Your task to perform on an android device: add a contact in the contacts app Image 0: 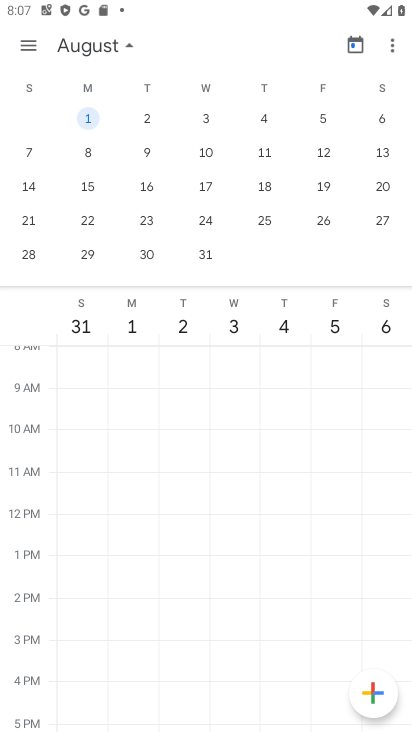
Step 0: press home button
Your task to perform on an android device: add a contact in the contacts app Image 1: 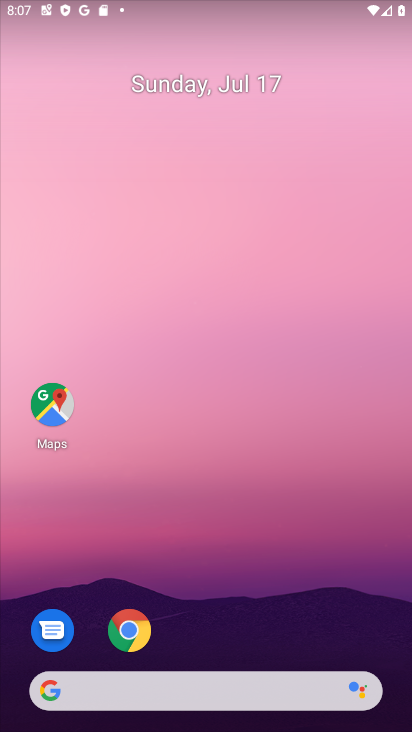
Step 1: drag from (195, 596) to (195, 420)
Your task to perform on an android device: add a contact in the contacts app Image 2: 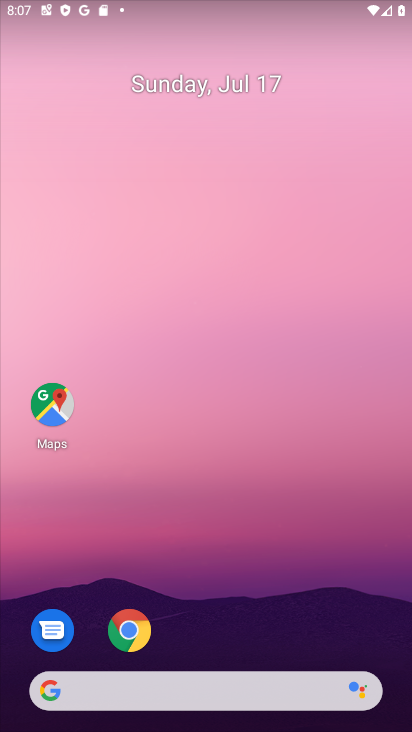
Step 2: drag from (190, 569) to (265, 100)
Your task to perform on an android device: add a contact in the contacts app Image 3: 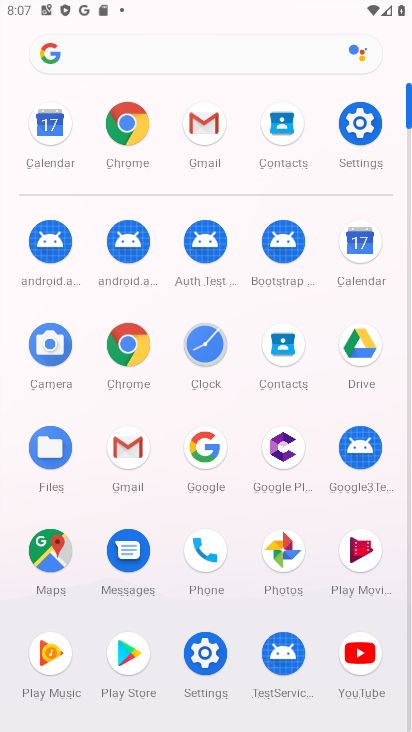
Step 3: click (281, 376)
Your task to perform on an android device: add a contact in the contacts app Image 4: 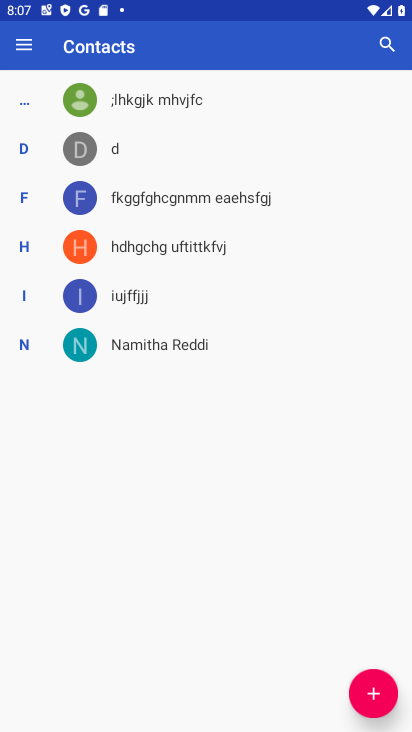
Step 4: click (368, 697)
Your task to perform on an android device: add a contact in the contacts app Image 5: 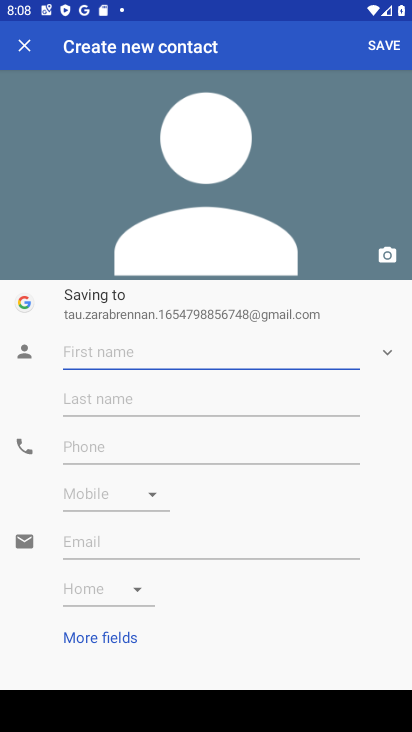
Step 5: type "Rudra"
Your task to perform on an android device: add a contact in the contacts app Image 6: 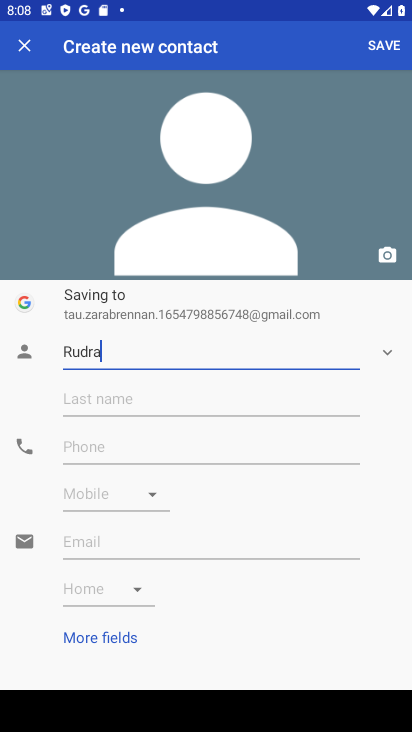
Step 6: click (174, 404)
Your task to perform on an android device: add a contact in the contacts app Image 7: 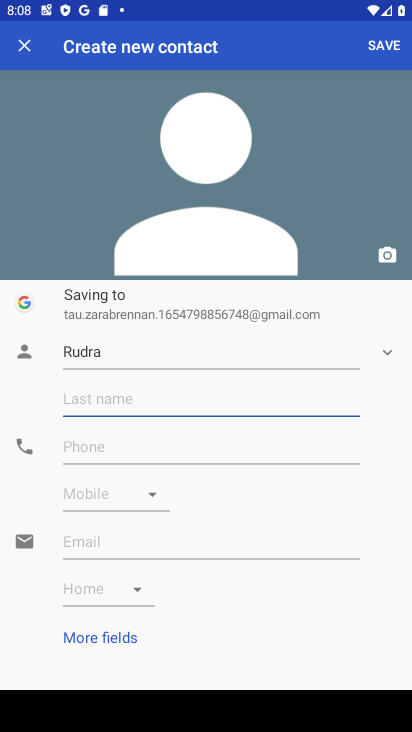
Step 7: type "Singh"
Your task to perform on an android device: add a contact in the contacts app Image 8: 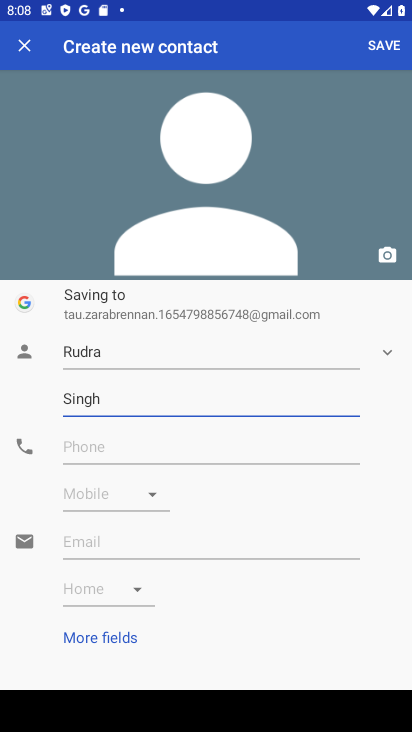
Step 8: click (239, 443)
Your task to perform on an android device: add a contact in the contacts app Image 9: 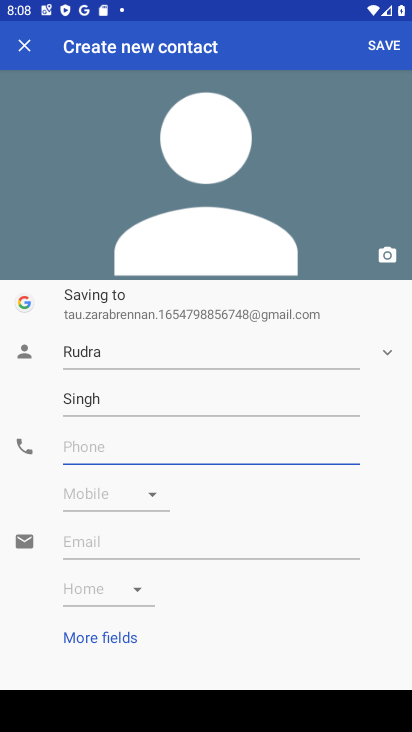
Step 9: type "7887787777"
Your task to perform on an android device: add a contact in the contacts app Image 10: 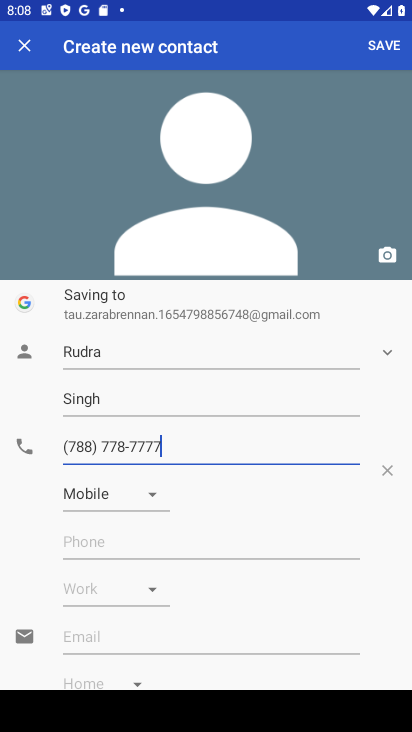
Step 10: click (387, 48)
Your task to perform on an android device: add a contact in the contacts app Image 11: 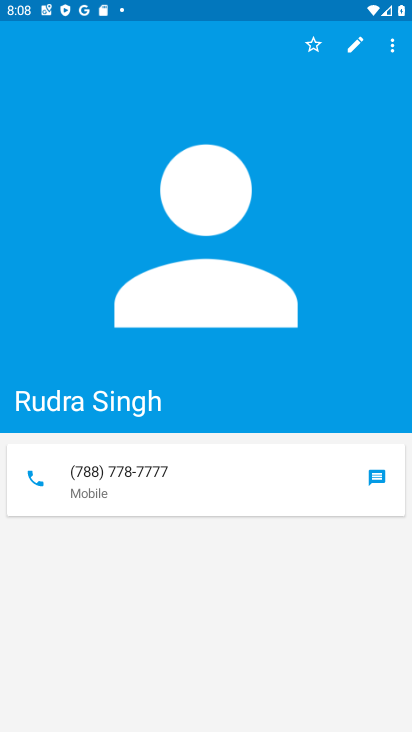
Step 11: task complete